Your task to perform on an android device: Empty the shopping cart on walmart. Search for "razer nari" on walmart, select the first entry, and add it to the cart. Image 0: 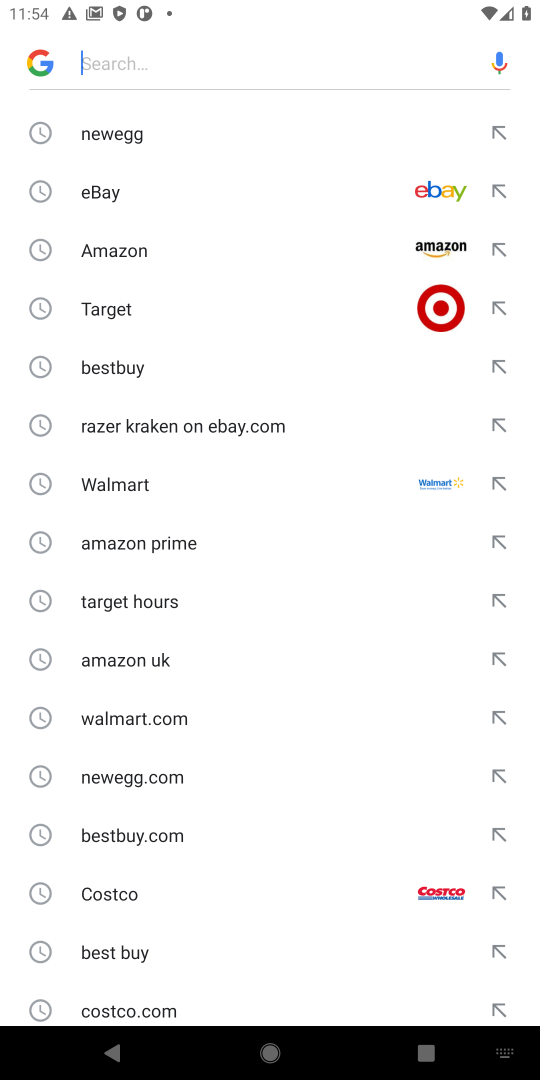
Step 0: type "walmart"
Your task to perform on an android device: Empty the shopping cart on walmart. Search for "razer nari" on walmart, select the first entry, and add it to the cart. Image 1: 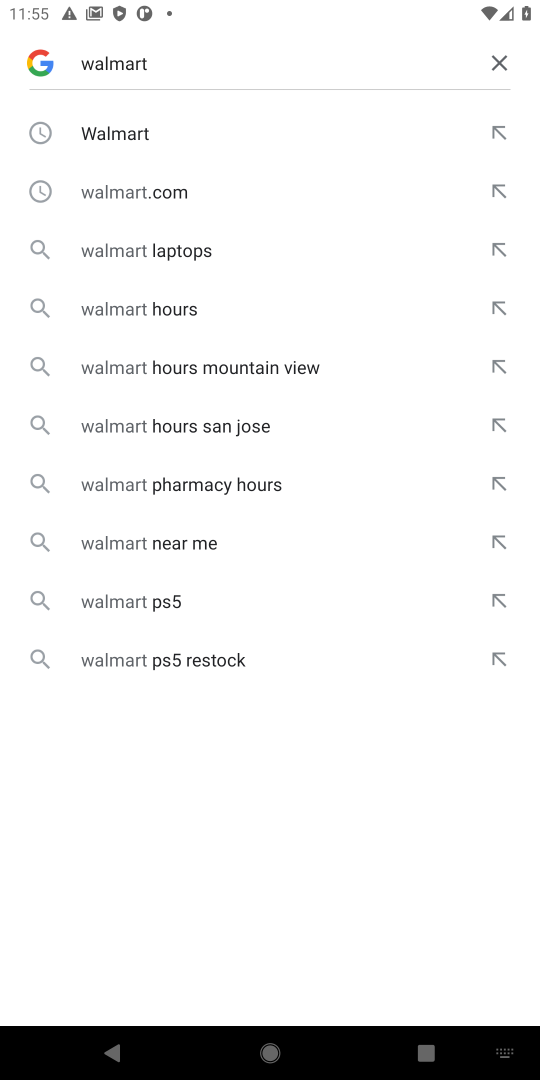
Step 1: click (162, 147)
Your task to perform on an android device: Empty the shopping cart on walmart. Search for "razer nari" on walmart, select the first entry, and add it to the cart. Image 2: 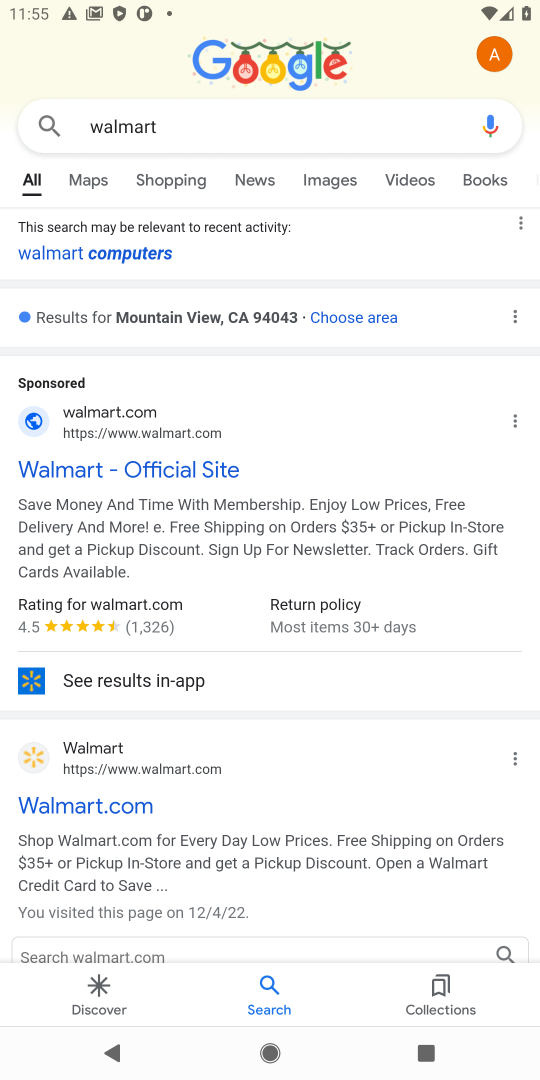
Step 2: click (85, 478)
Your task to perform on an android device: Empty the shopping cart on walmart. Search for "razer nari" on walmart, select the first entry, and add it to the cart. Image 3: 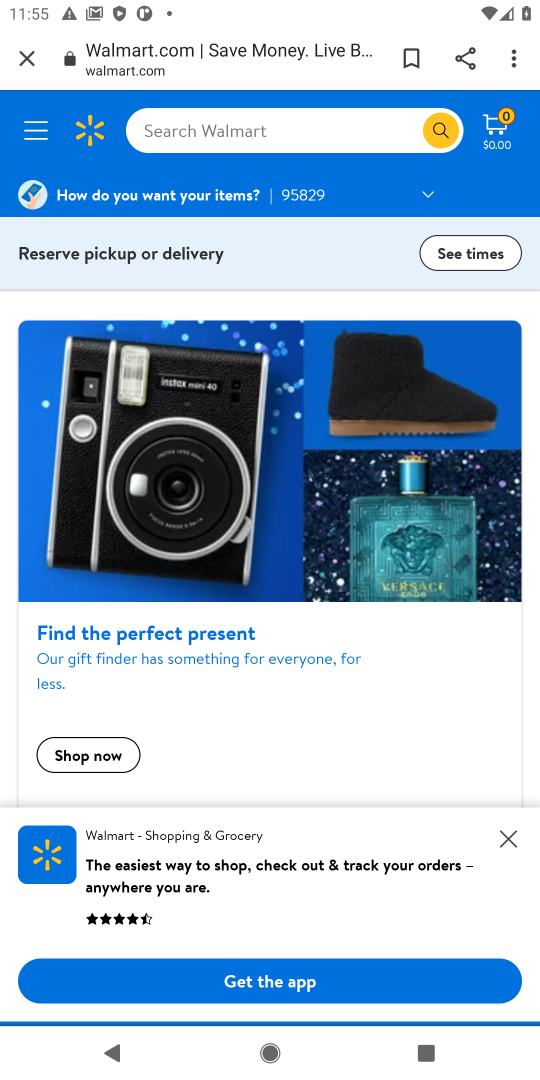
Step 3: task complete